Your task to perform on an android device: empty trash in google photos Image 0: 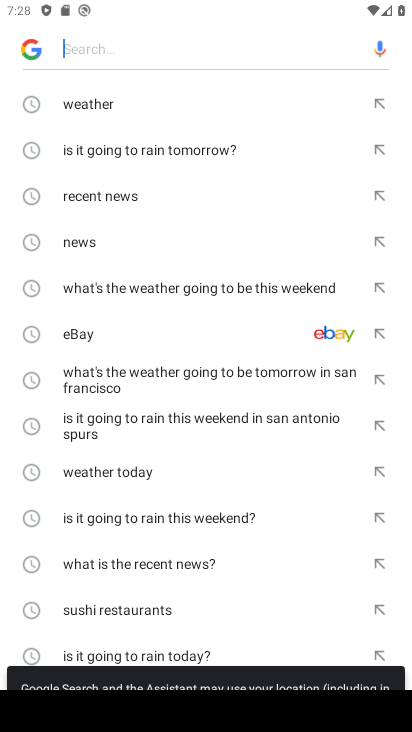
Step 0: press home button
Your task to perform on an android device: empty trash in google photos Image 1: 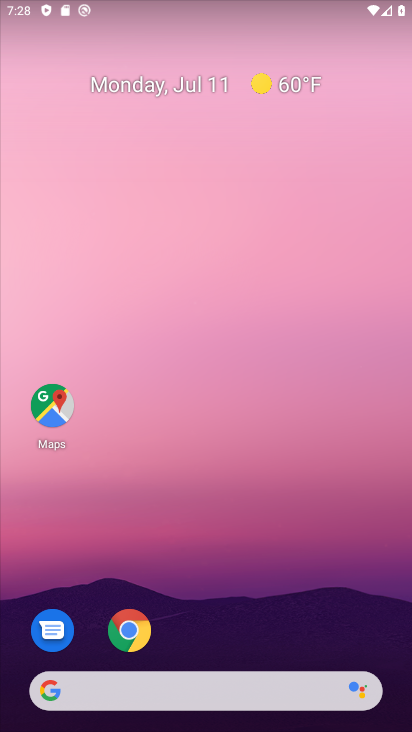
Step 1: drag from (369, 632) to (344, 86)
Your task to perform on an android device: empty trash in google photos Image 2: 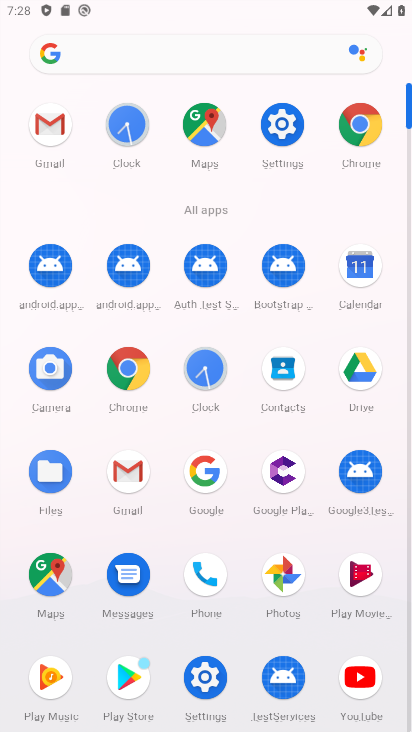
Step 2: click (283, 575)
Your task to perform on an android device: empty trash in google photos Image 3: 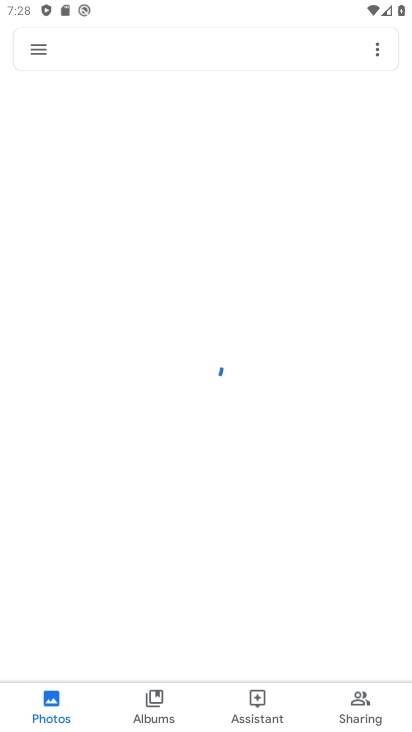
Step 3: click (30, 49)
Your task to perform on an android device: empty trash in google photos Image 4: 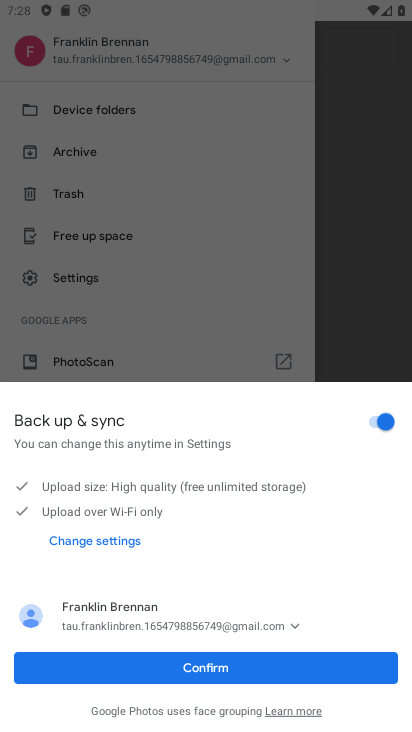
Step 4: click (216, 673)
Your task to perform on an android device: empty trash in google photos Image 5: 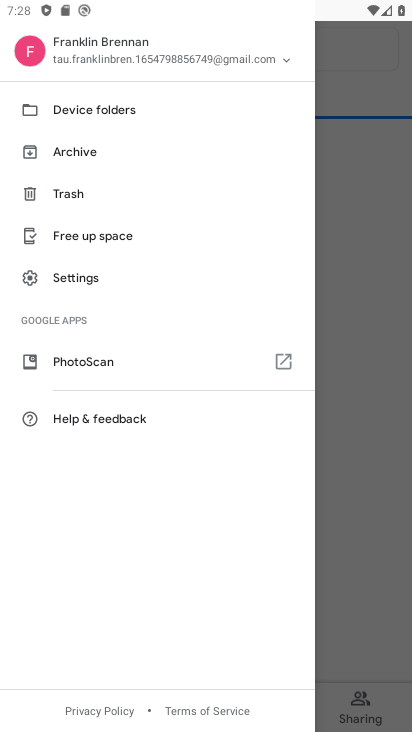
Step 5: click (63, 194)
Your task to perform on an android device: empty trash in google photos Image 6: 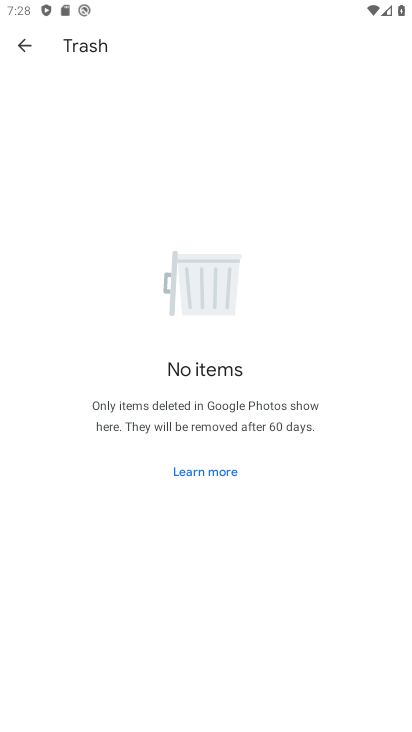
Step 6: task complete